Your task to perform on an android device: Search for good pizza restaurants on Maps Image 0: 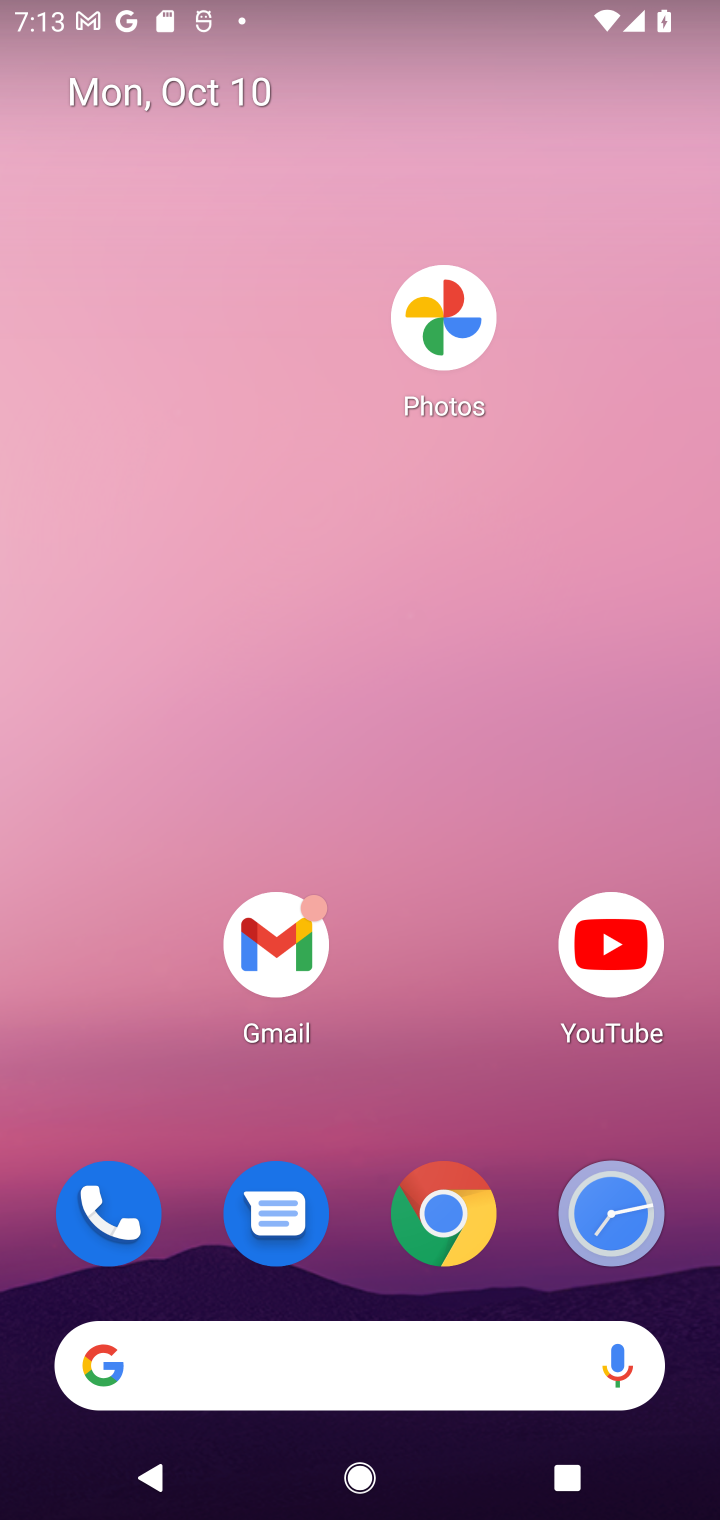
Step 0: drag from (402, 947) to (395, 133)
Your task to perform on an android device: Search for good pizza restaurants on Maps Image 1: 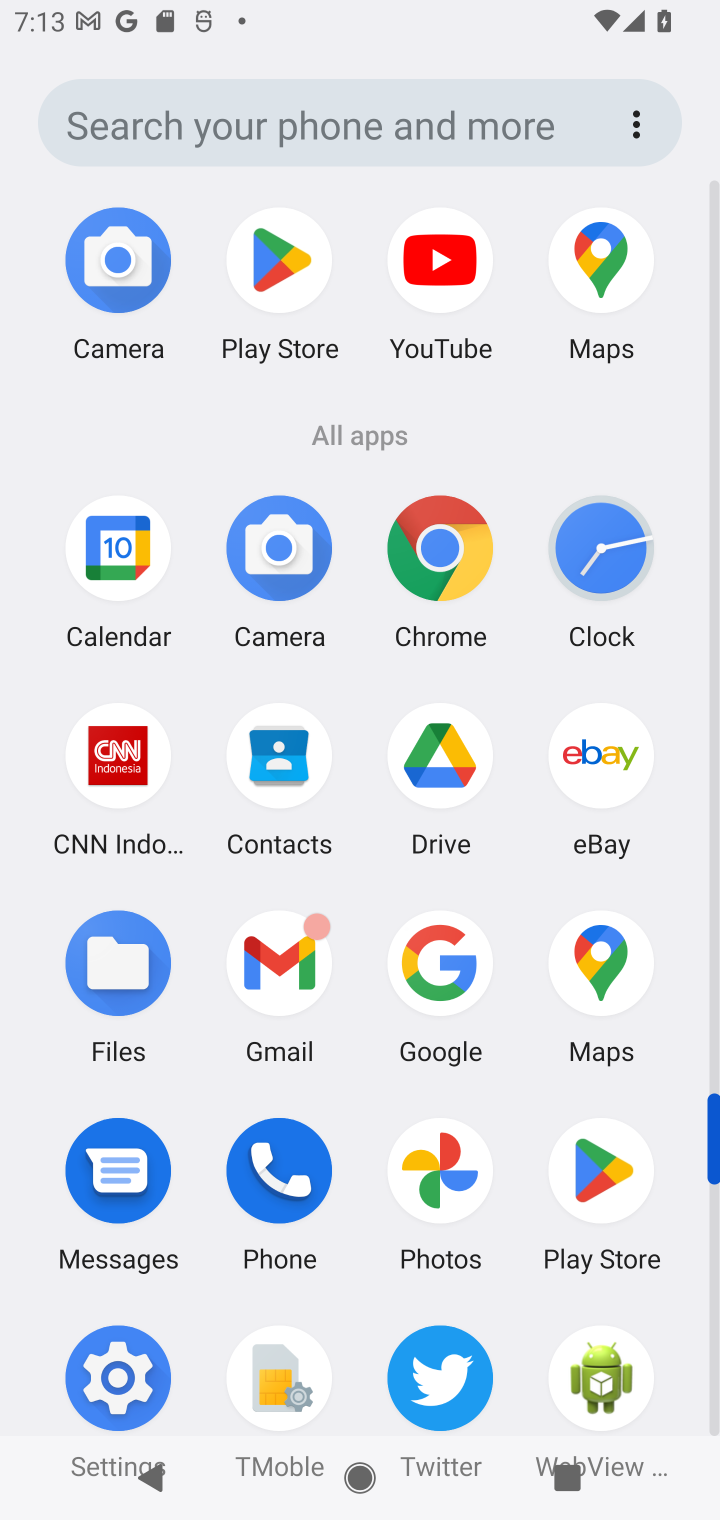
Step 1: click (597, 255)
Your task to perform on an android device: Search for good pizza restaurants on Maps Image 2: 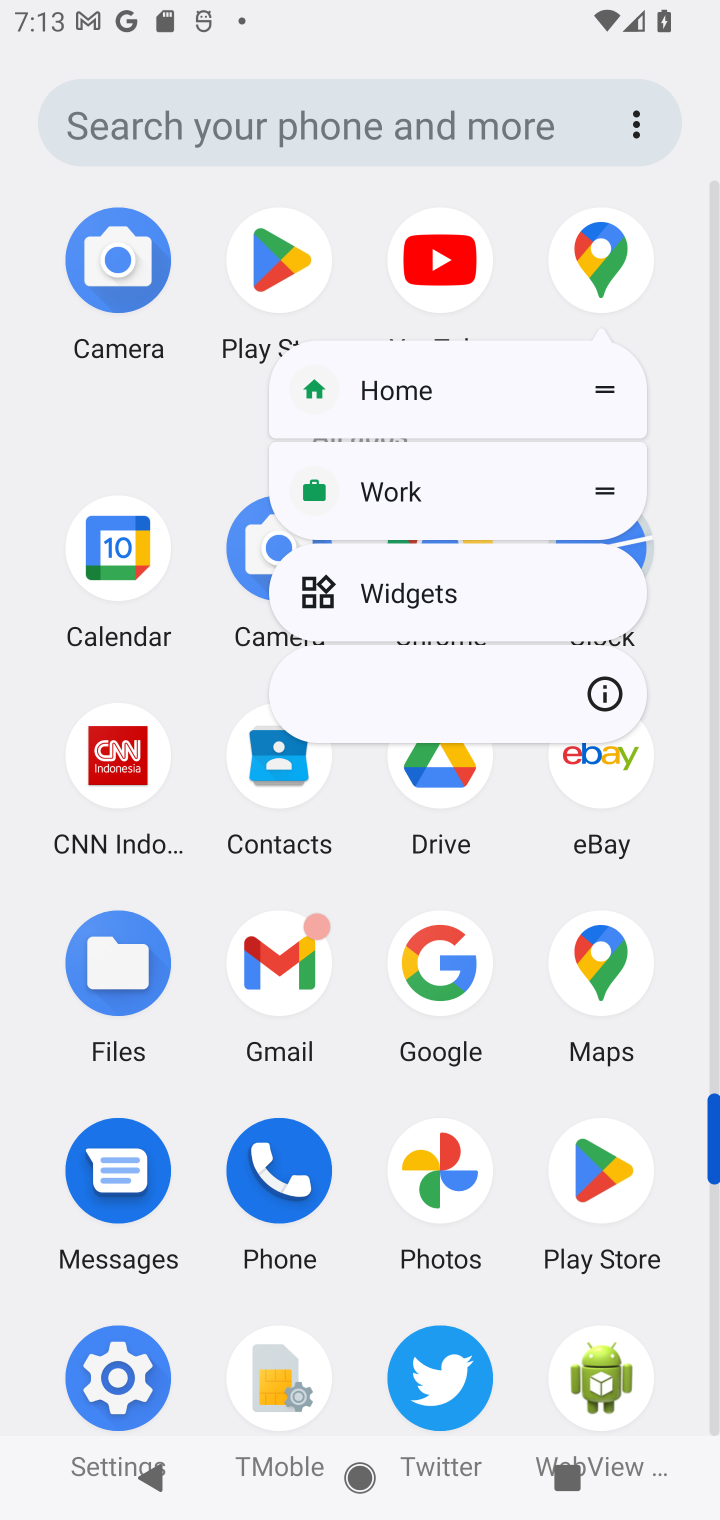
Step 2: click (611, 280)
Your task to perform on an android device: Search for good pizza restaurants on Maps Image 3: 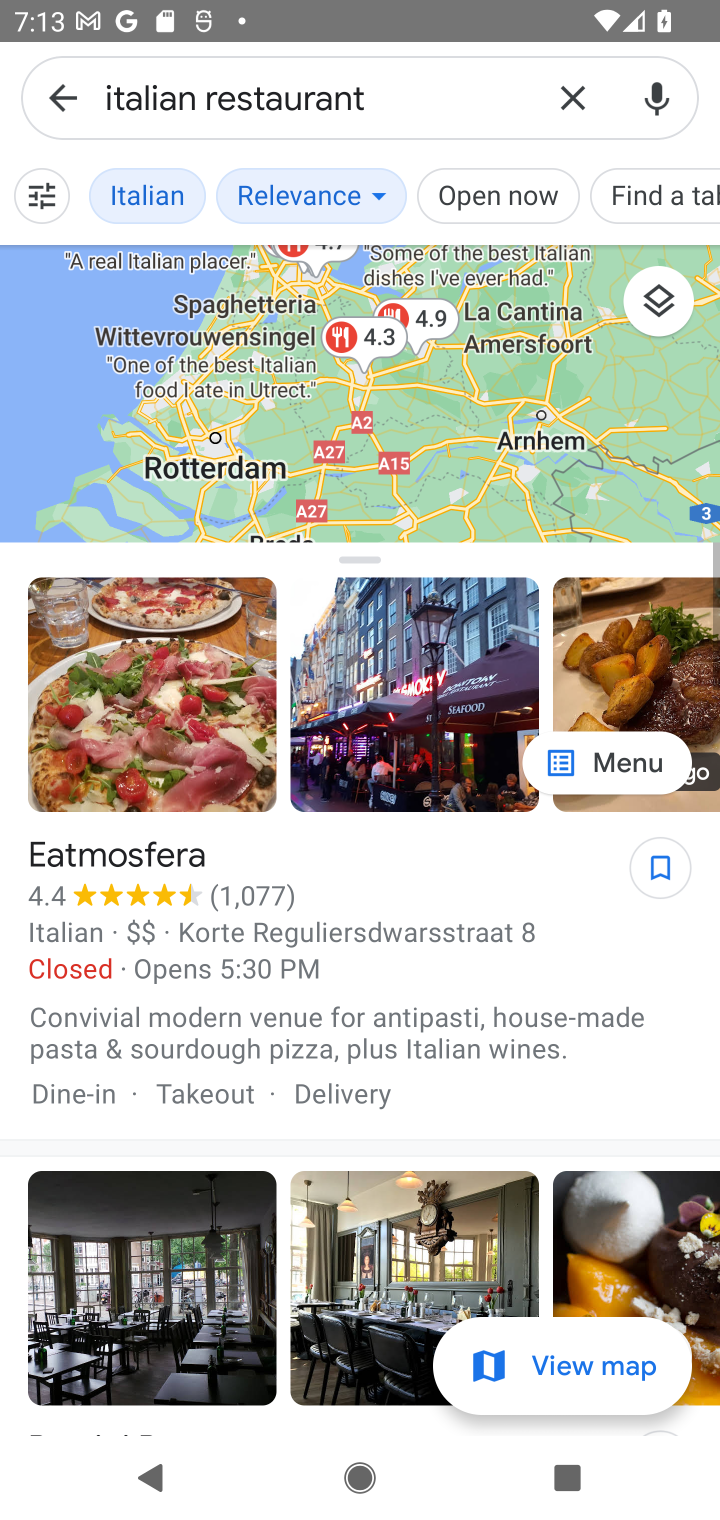
Step 3: click (570, 106)
Your task to perform on an android device: Search for good pizza restaurants on Maps Image 4: 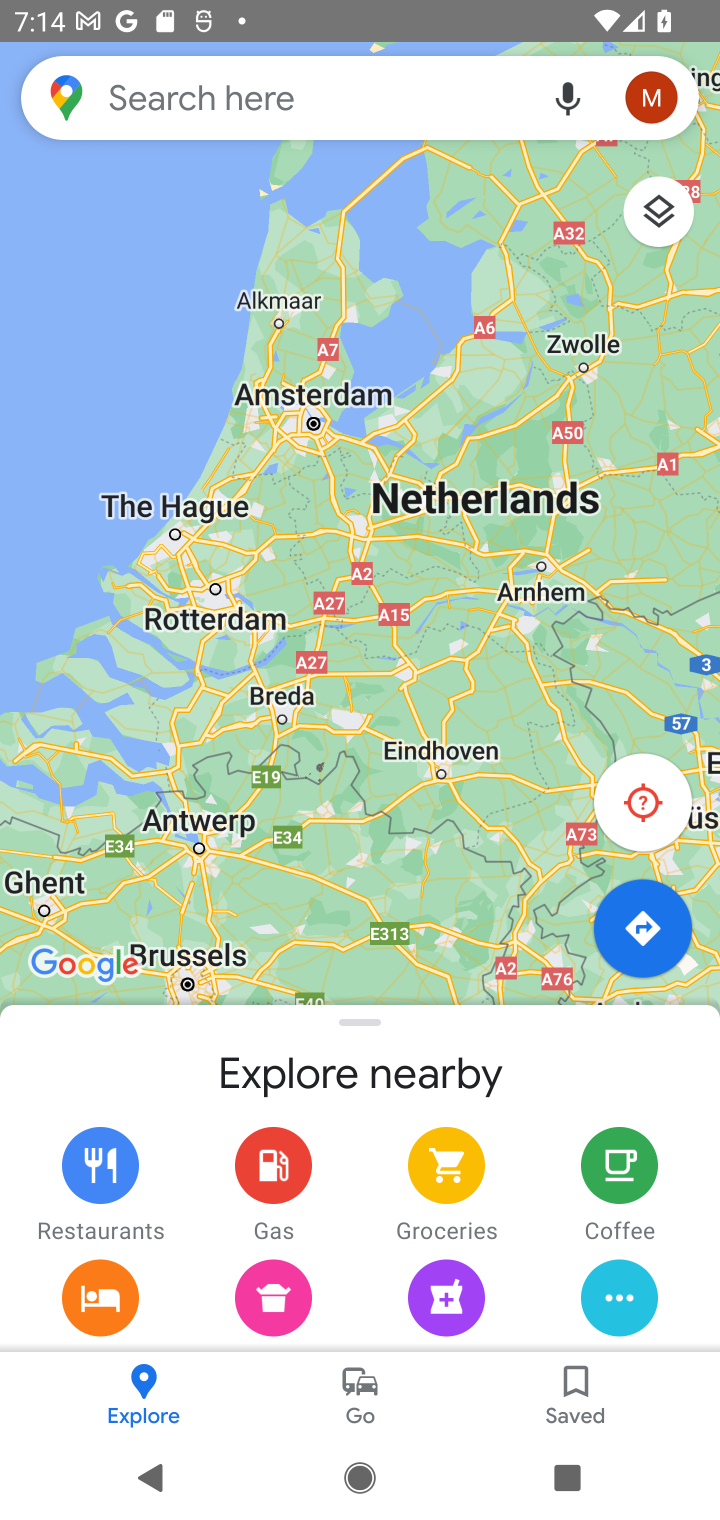
Step 4: type "good pizza restaurants"
Your task to perform on an android device: Search for good pizza restaurants on Maps Image 5: 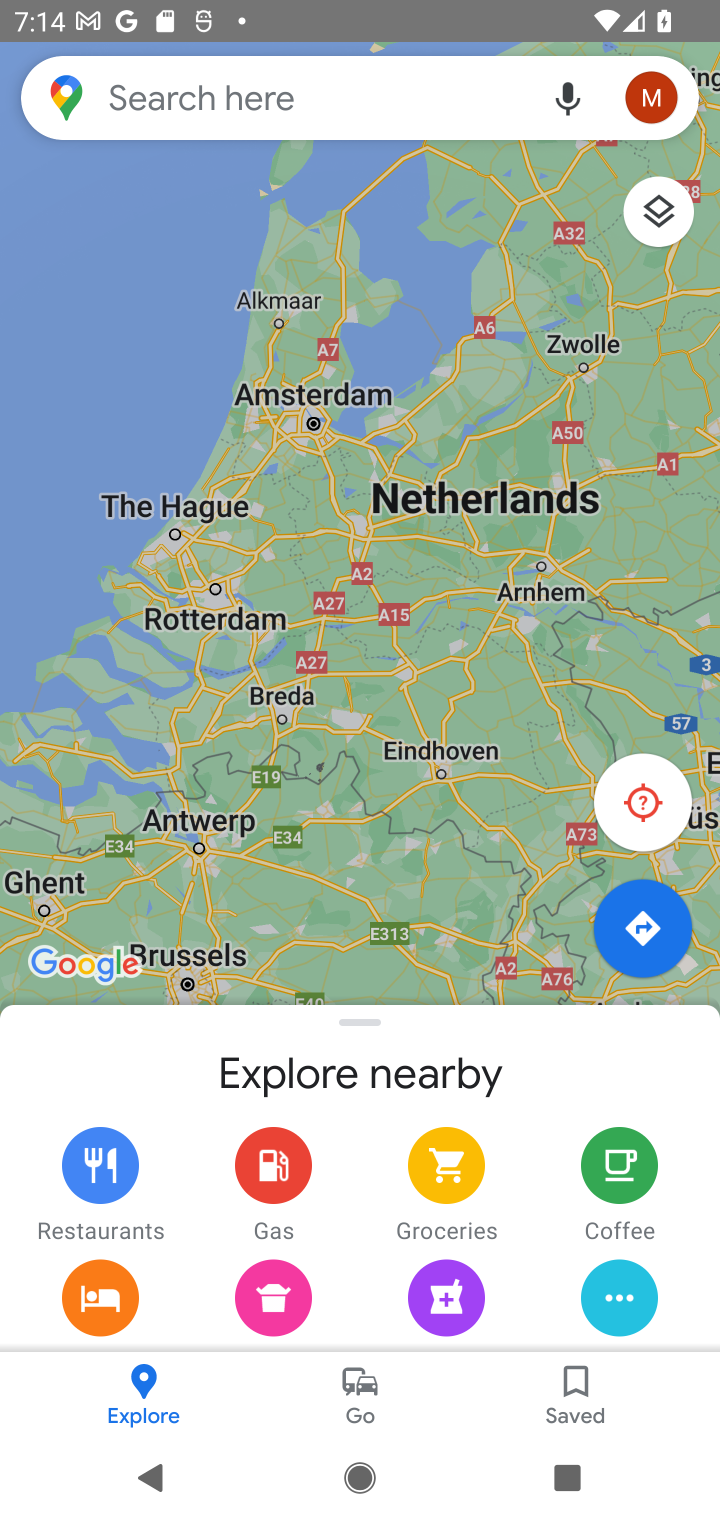
Step 5: type ""
Your task to perform on an android device: Search for good pizza restaurants on Maps Image 6: 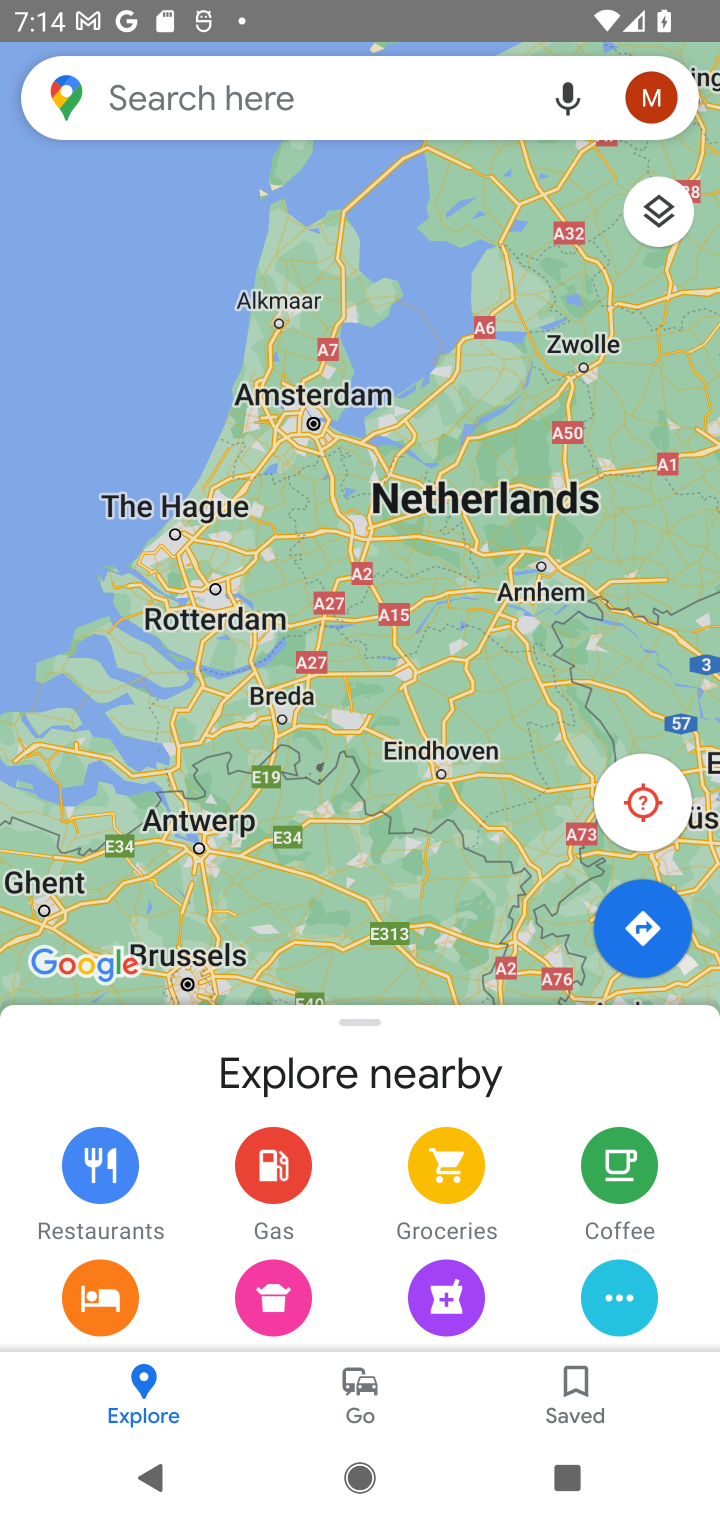
Step 6: click (327, 98)
Your task to perform on an android device: Search for good pizza restaurants on Maps Image 7: 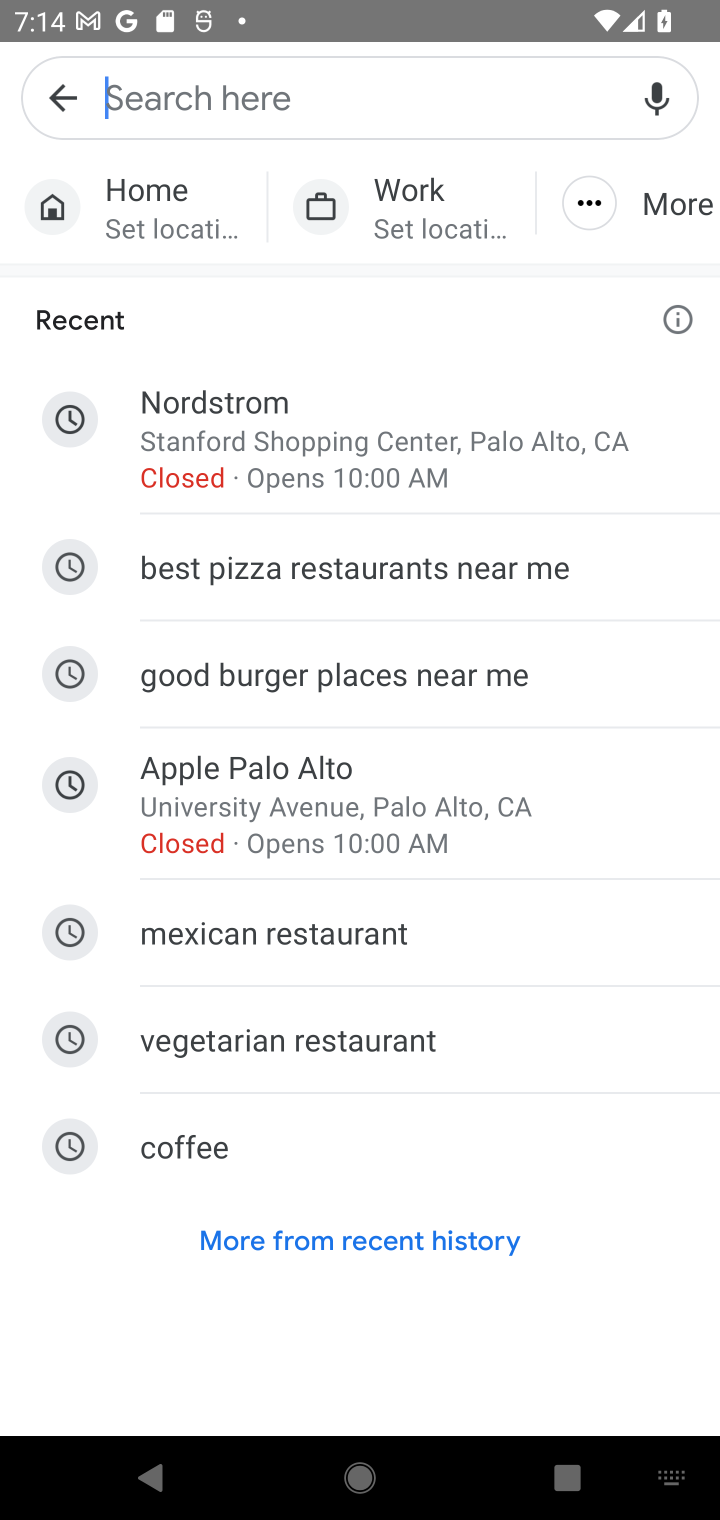
Step 7: type "good pizza restaurants "
Your task to perform on an android device: Search for good pizza restaurants on Maps Image 8: 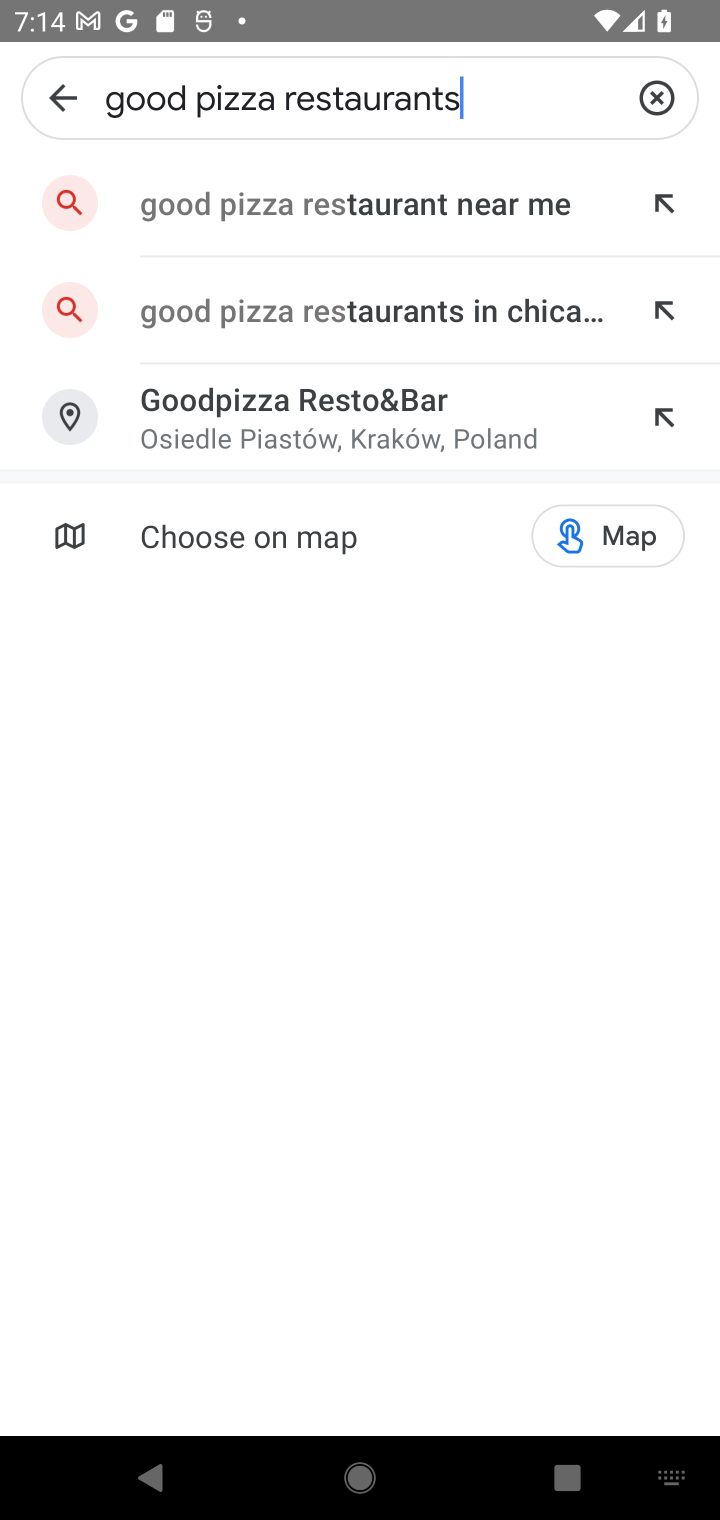
Step 8: type ""
Your task to perform on an android device: Search for good pizza restaurants on Maps Image 9: 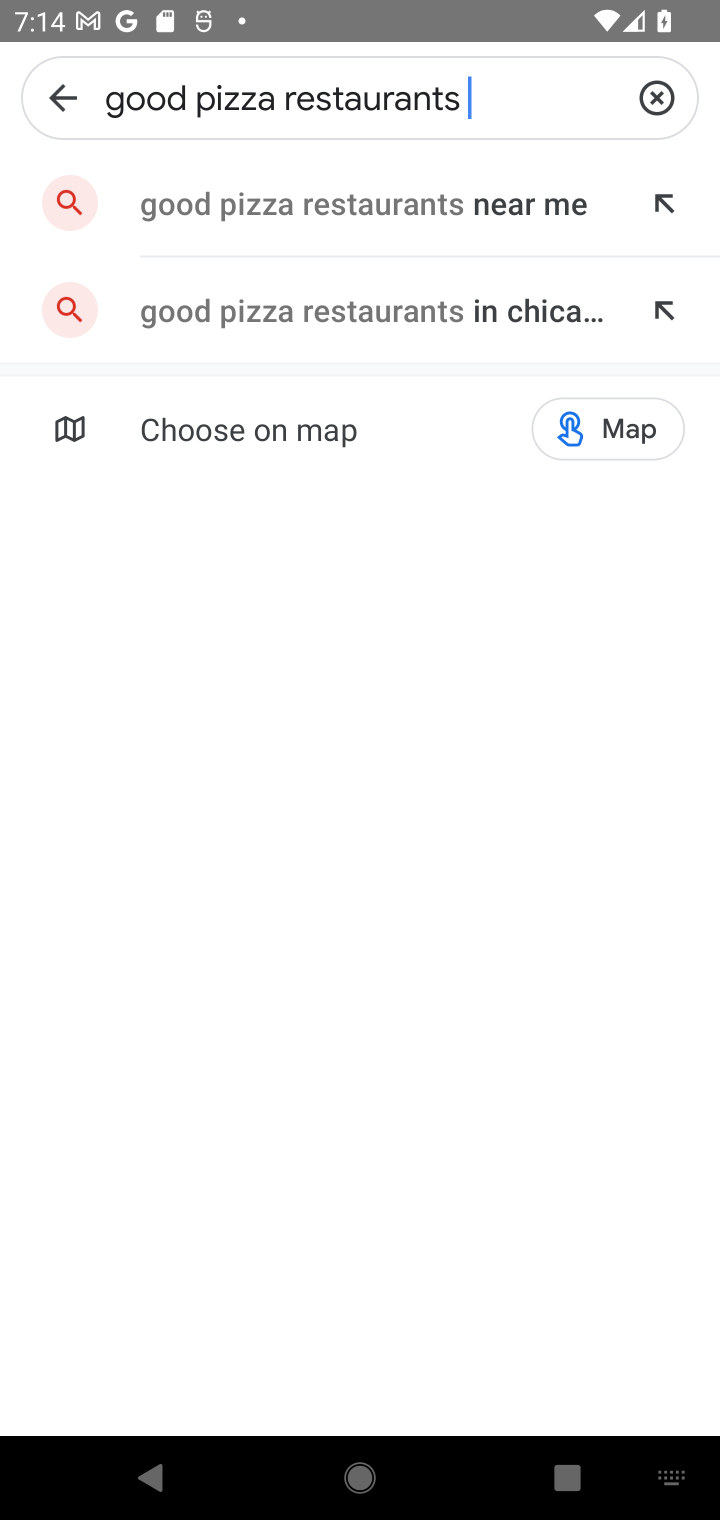
Step 9: click (459, 207)
Your task to perform on an android device: Search for good pizza restaurants on Maps Image 10: 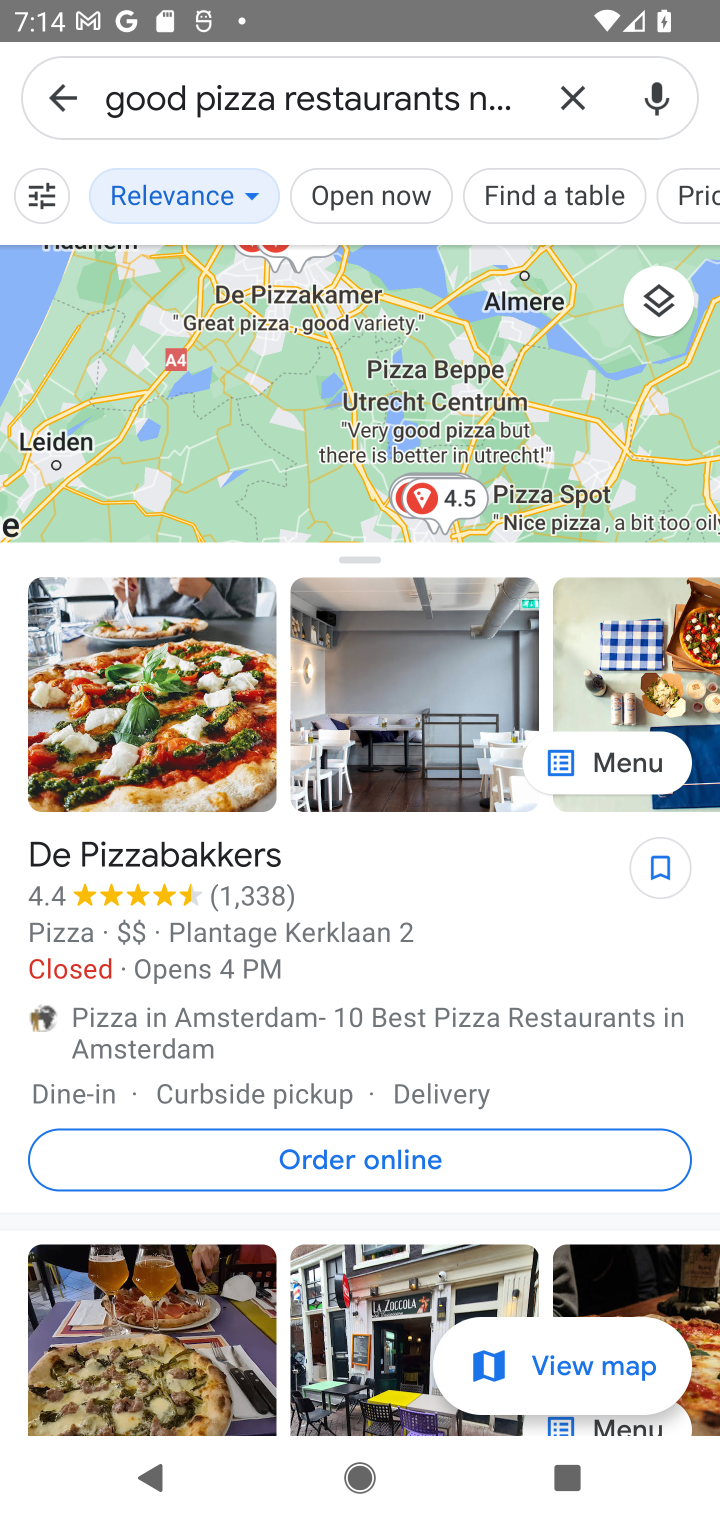
Step 10: task complete